Your task to perform on an android device: turn off priority inbox in the gmail app Image 0: 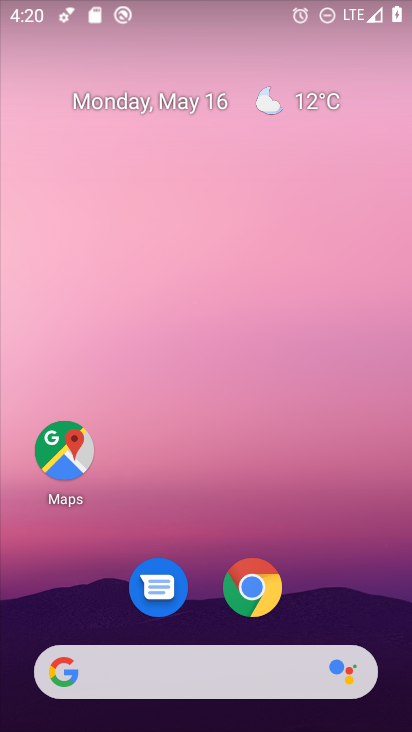
Step 0: drag from (368, 364) to (370, 244)
Your task to perform on an android device: turn off priority inbox in the gmail app Image 1: 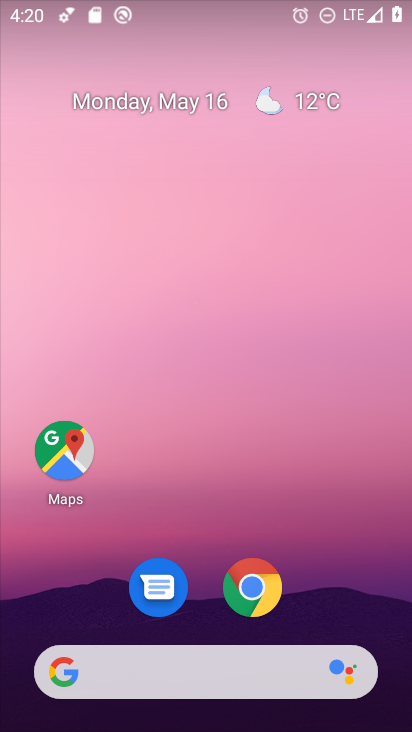
Step 1: drag from (400, 686) to (411, 143)
Your task to perform on an android device: turn off priority inbox in the gmail app Image 2: 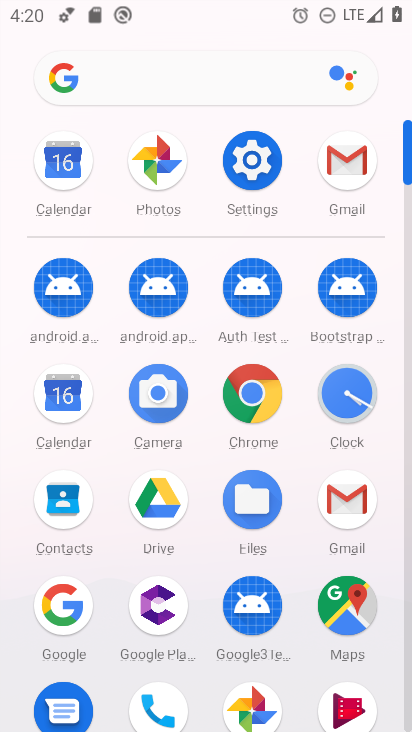
Step 2: click (354, 489)
Your task to perform on an android device: turn off priority inbox in the gmail app Image 3: 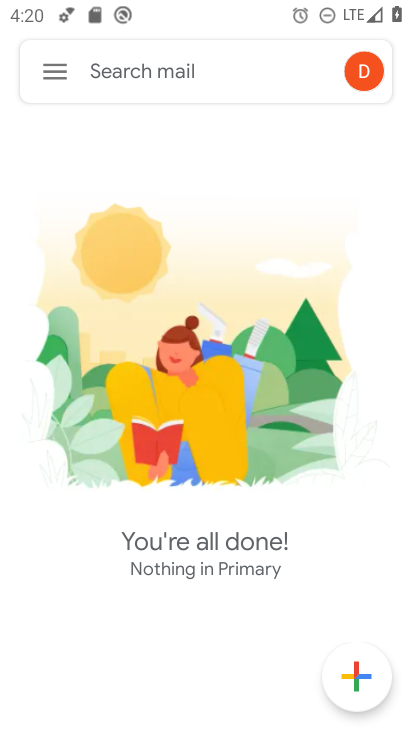
Step 3: click (54, 71)
Your task to perform on an android device: turn off priority inbox in the gmail app Image 4: 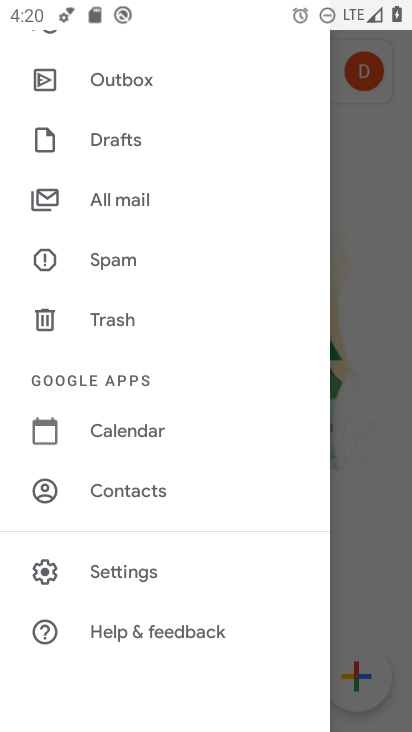
Step 4: click (107, 572)
Your task to perform on an android device: turn off priority inbox in the gmail app Image 5: 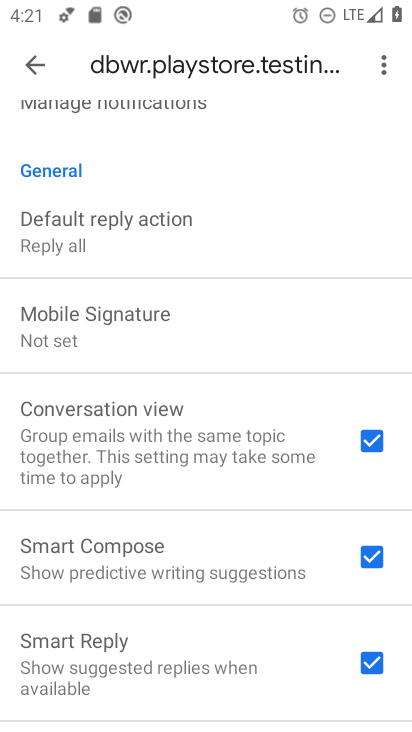
Step 5: drag from (216, 661) to (205, 442)
Your task to perform on an android device: turn off priority inbox in the gmail app Image 6: 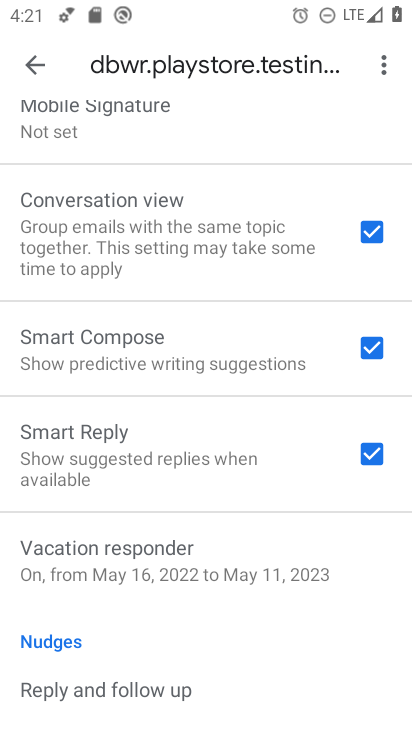
Step 6: drag from (165, 373) to (165, 637)
Your task to perform on an android device: turn off priority inbox in the gmail app Image 7: 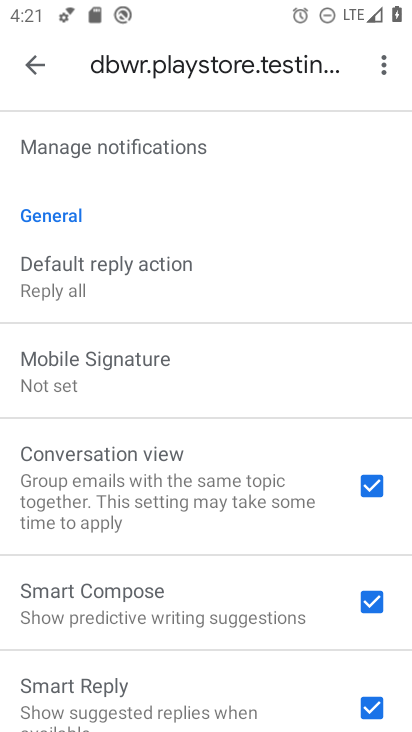
Step 7: drag from (174, 230) to (209, 540)
Your task to perform on an android device: turn off priority inbox in the gmail app Image 8: 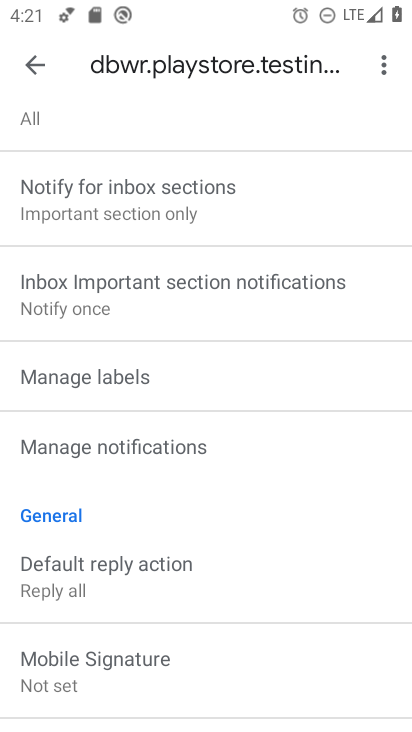
Step 8: drag from (203, 361) to (237, 513)
Your task to perform on an android device: turn off priority inbox in the gmail app Image 9: 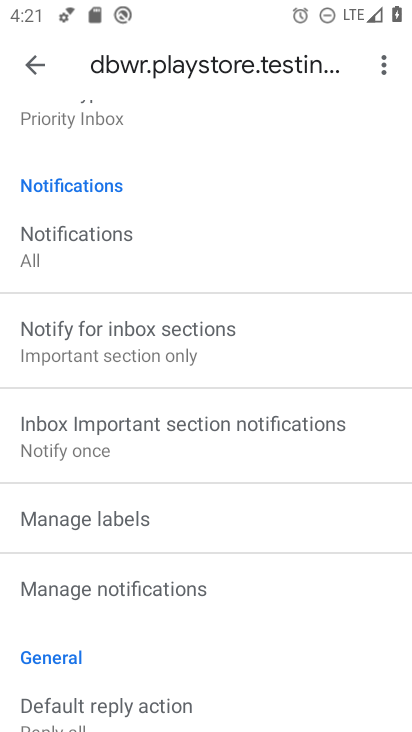
Step 9: drag from (234, 350) to (249, 523)
Your task to perform on an android device: turn off priority inbox in the gmail app Image 10: 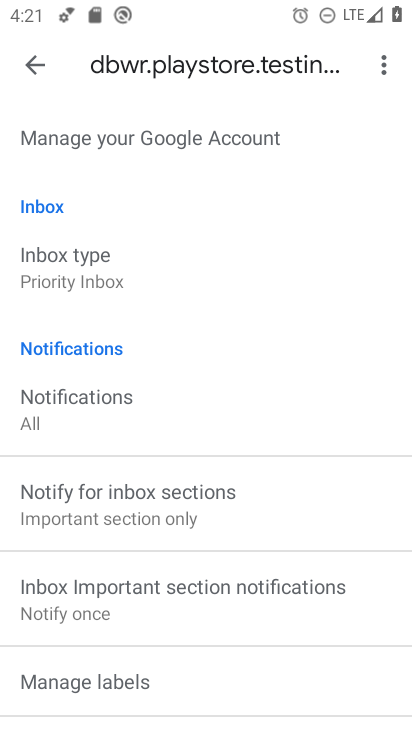
Step 10: click (74, 266)
Your task to perform on an android device: turn off priority inbox in the gmail app Image 11: 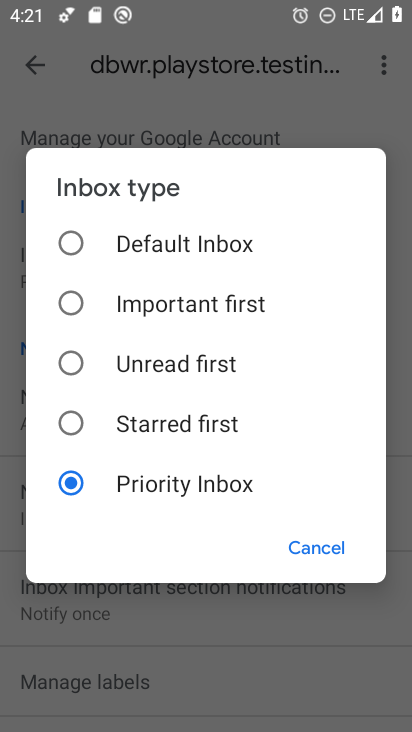
Step 11: click (70, 240)
Your task to perform on an android device: turn off priority inbox in the gmail app Image 12: 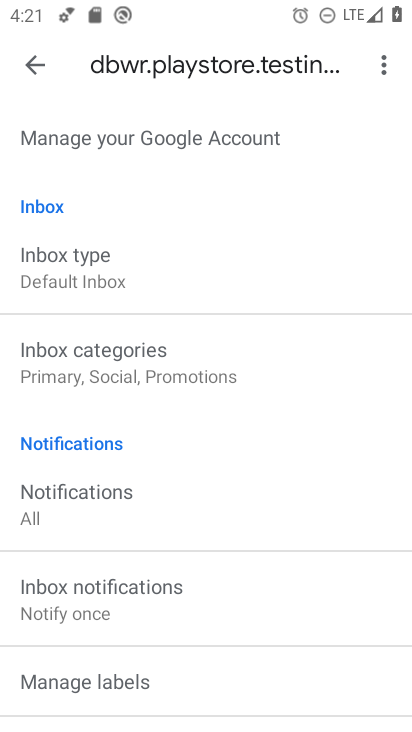
Step 12: task complete